Your task to perform on an android device: open app "Google News" Image 0: 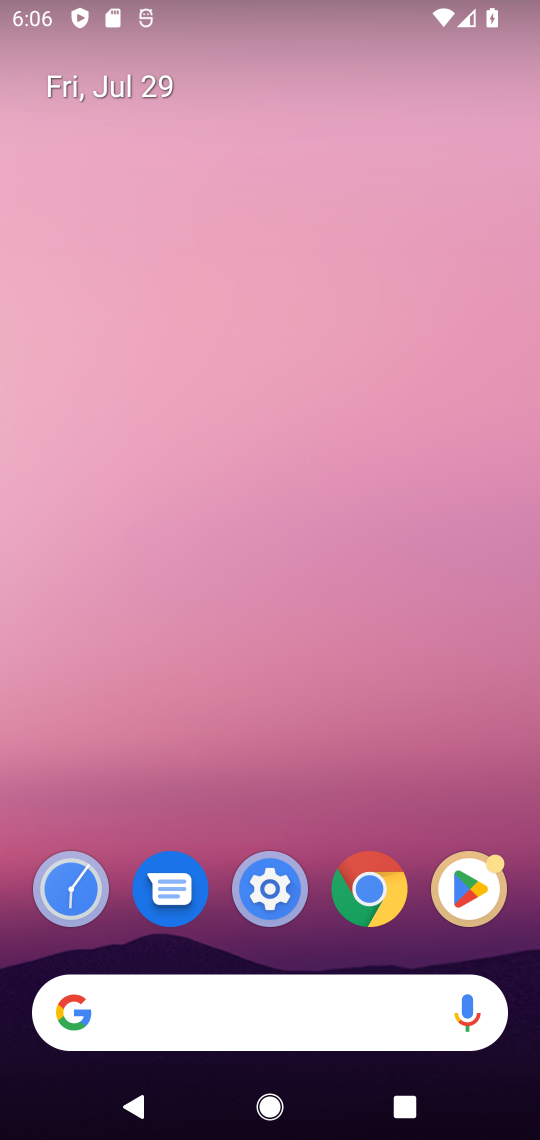
Step 0: press home button
Your task to perform on an android device: open app "Google News" Image 1: 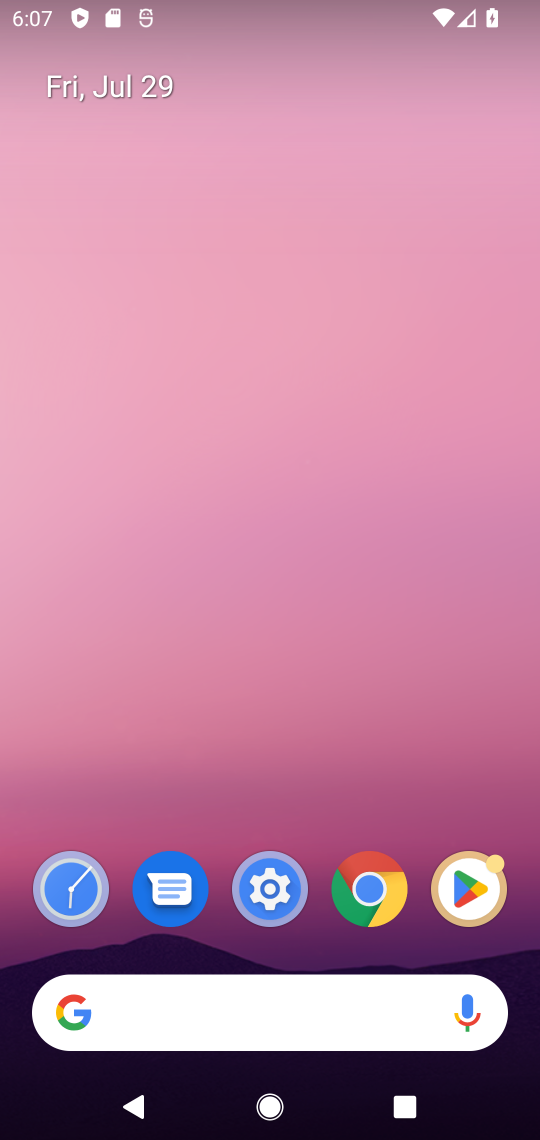
Step 1: drag from (213, 998) to (346, 226)
Your task to perform on an android device: open app "Google News" Image 2: 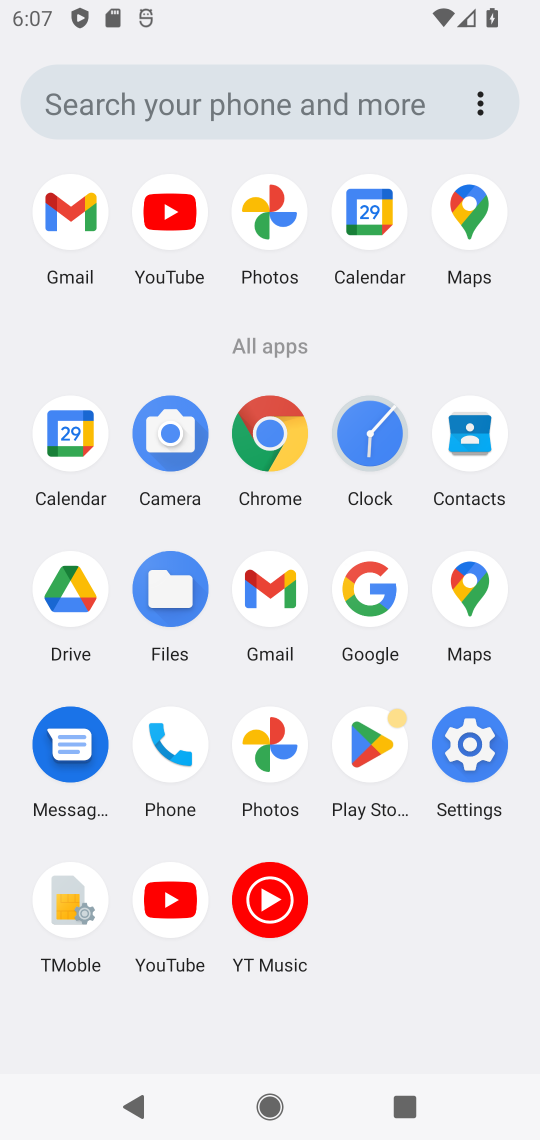
Step 2: drag from (377, 741) to (176, 565)
Your task to perform on an android device: open app "Google News" Image 3: 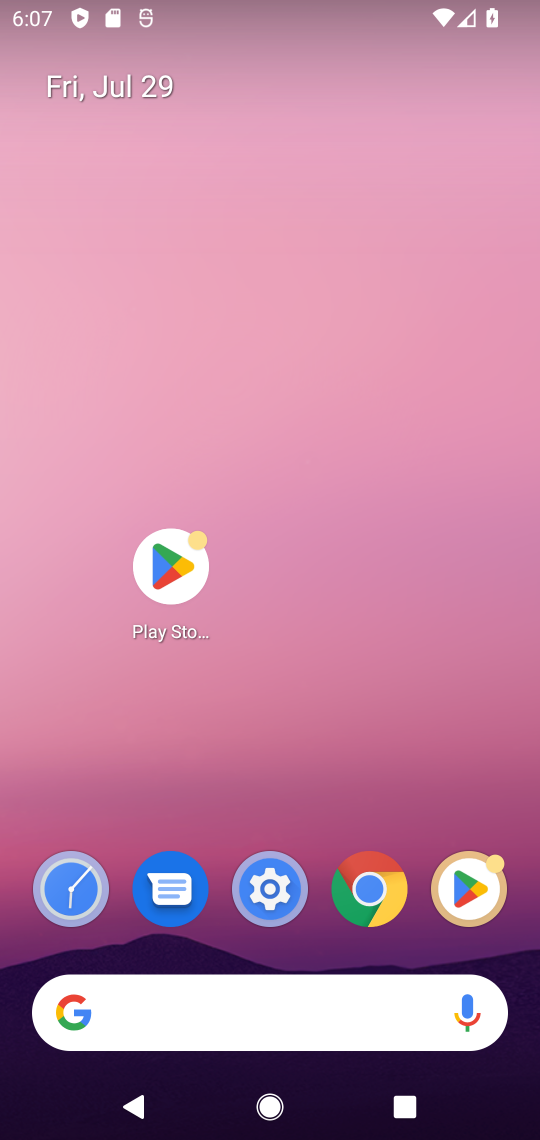
Step 3: click (189, 571)
Your task to perform on an android device: open app "Google News" Image 4: 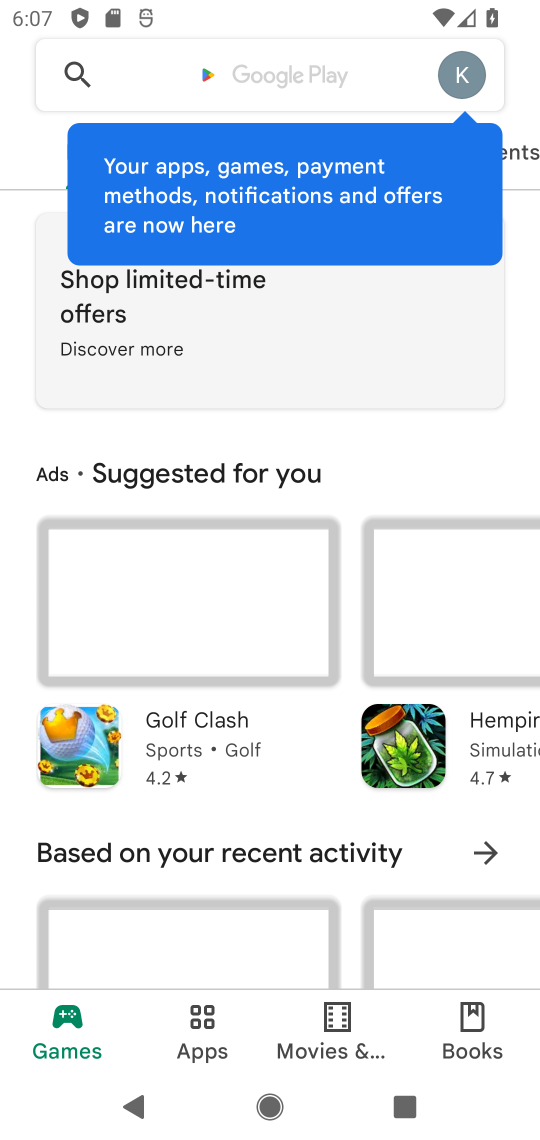
Step 4: click (348, 65)
Your task to perform on an android device: open app "Google News" Image 5: 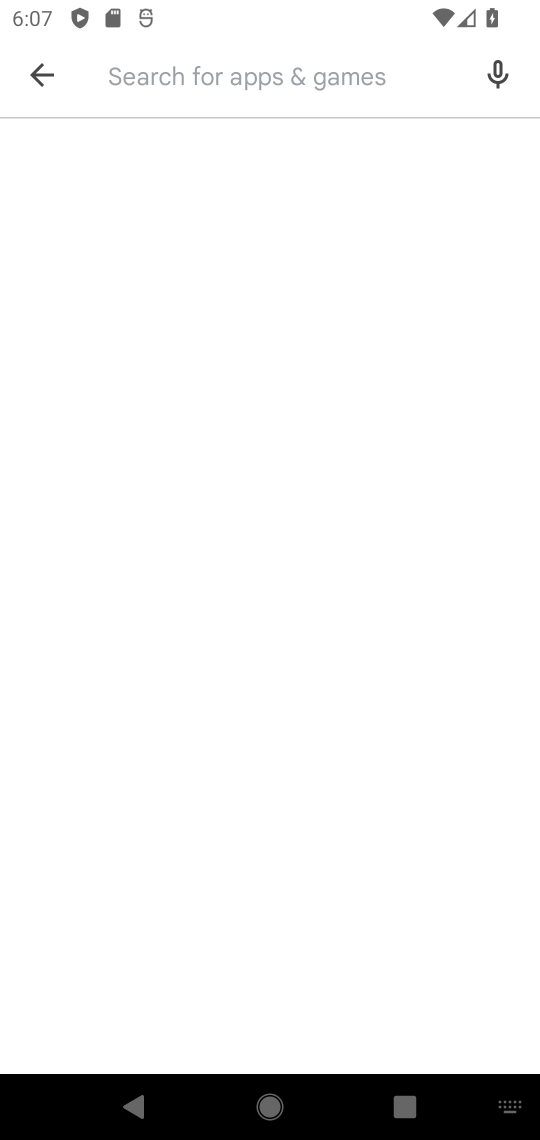
Step 5: type "Google News"
Your task to perform on an android device: open app "Google News" Image 6: 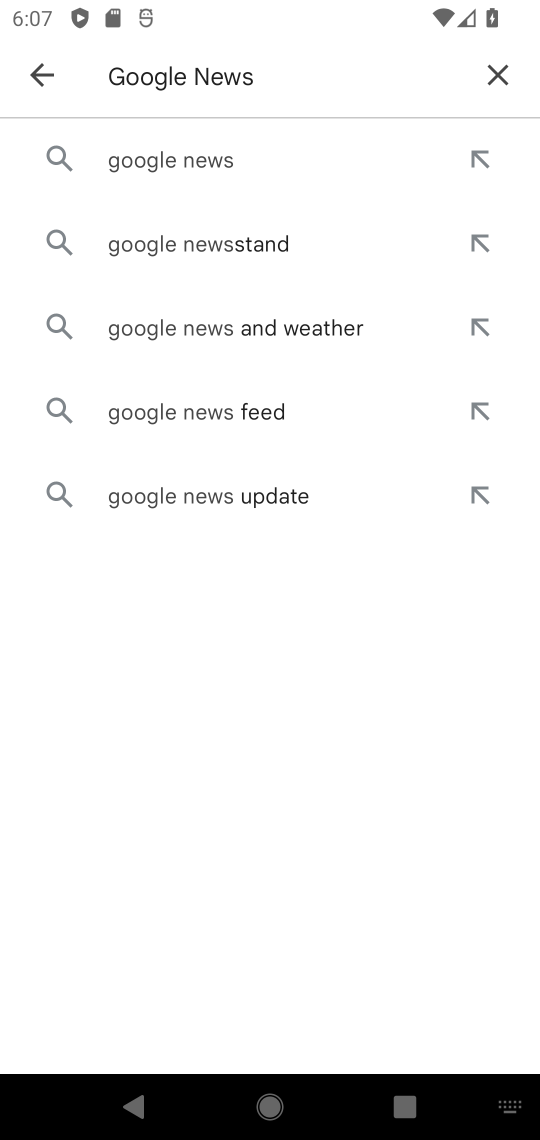
Step 6: click (172, 156)
Your task to perform on an android device: open app "Google News" Image 7: 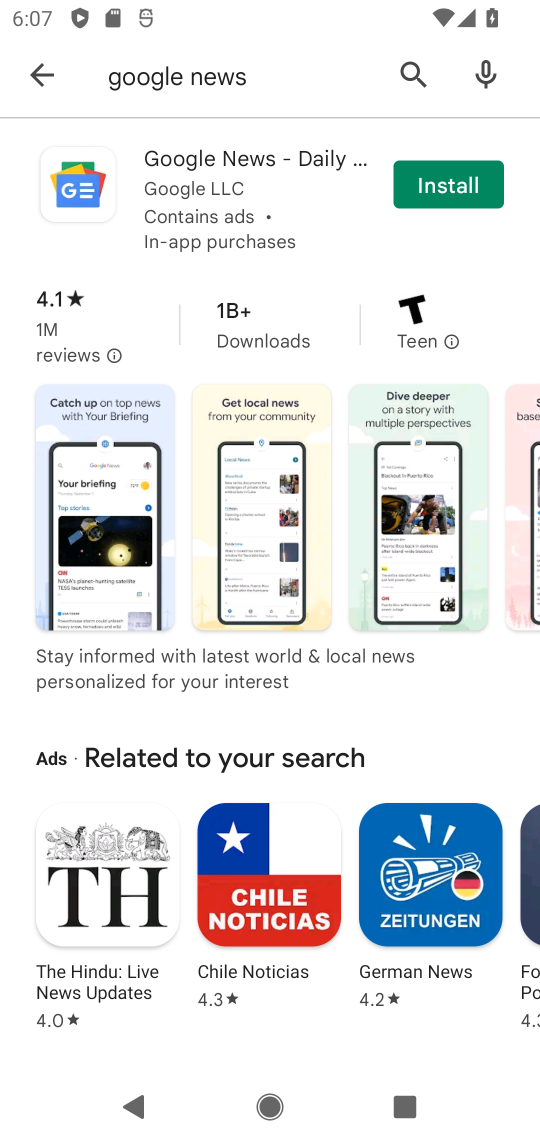
Step 7: task complete